Your task to perform on an android device: Open the web browser Image 0: 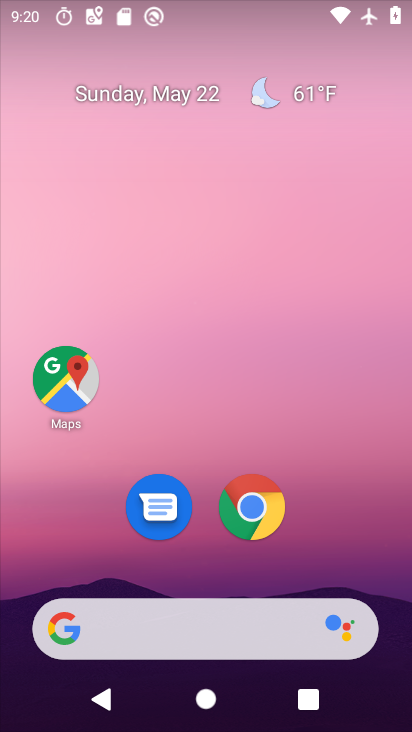
Step 0: click (170, 626)
Your task to perform on an android device: Open the web browser Image 1: 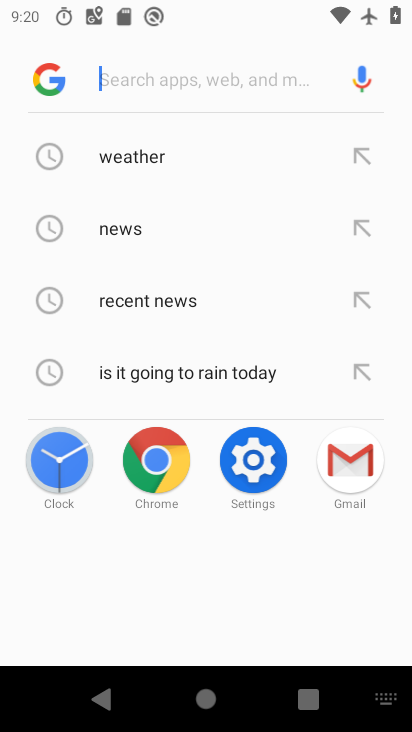
Step 1: task complete